Your task to perform on an android device: Search for Italian restaurants on Maps Image 0: 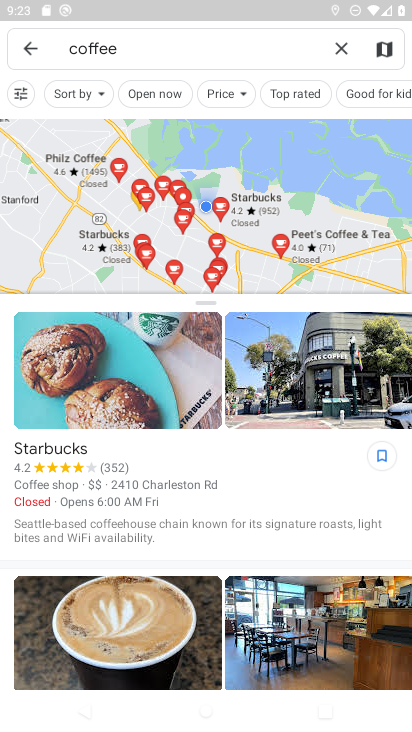
Step 0: press home button
Your task to perform on an android device: Search for Italian restaurants on Maps Image 1: 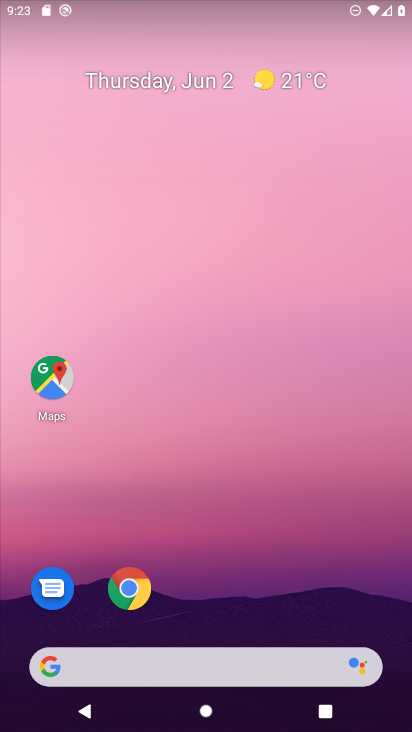
Step 1: drag from (275, 527) to (275, 387)
Your task to perform on an android device: Search for Italian restaurants on Maps Image 2: 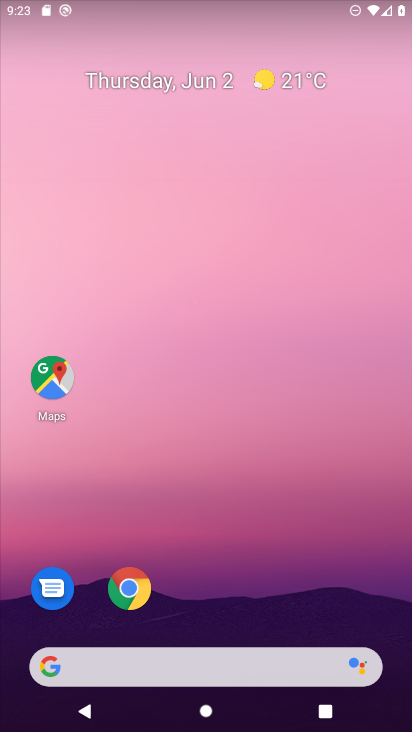
Step 2: drag from (235, 614) to (255, 200)
Your task to perform on an android device: Search for Italian restaurants on Maps Image 3: 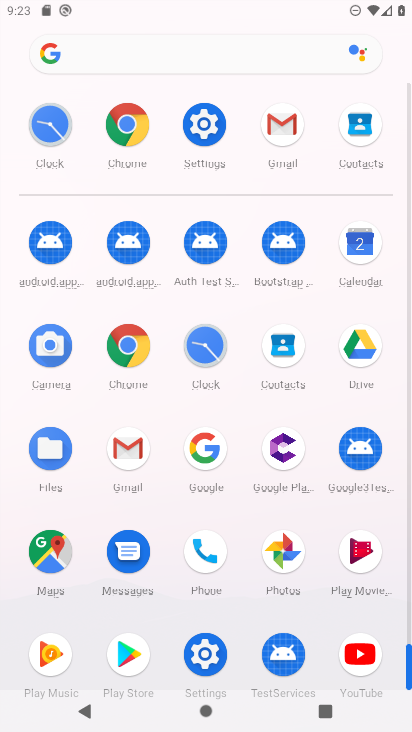
Step 3: click (43, 533)
Your task to perform on an android device: Search for Italian restaurants on Maps Image 4: 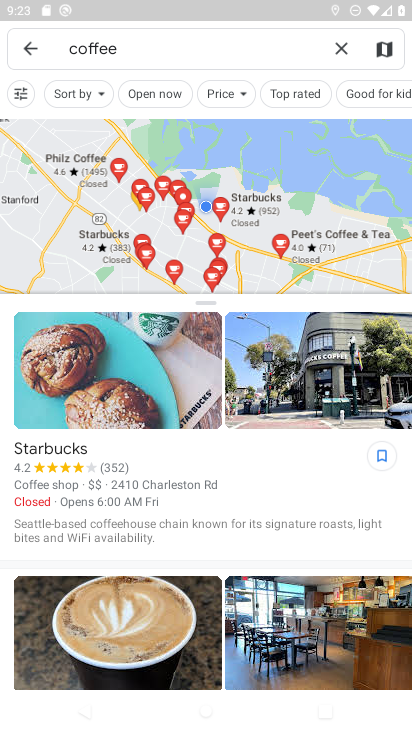
Step 4: click (340, 43)
Your task to perform on an android device: Search for Italian restaurants on Maps Image 5: 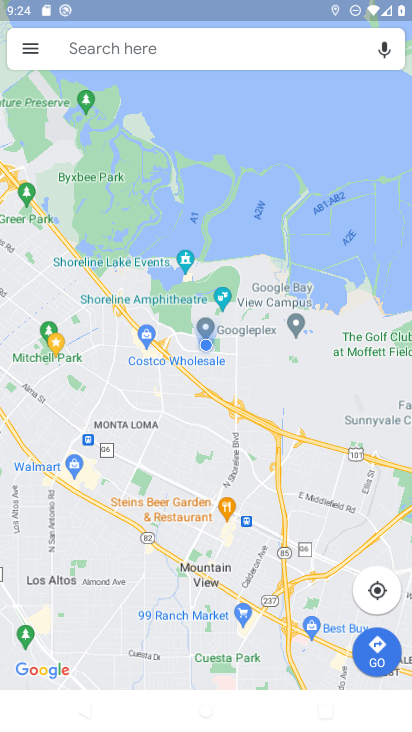
Step 5: click (317, 55)
Your task to perform on an android device: Search for Italian restaurants on Maps Image 6: 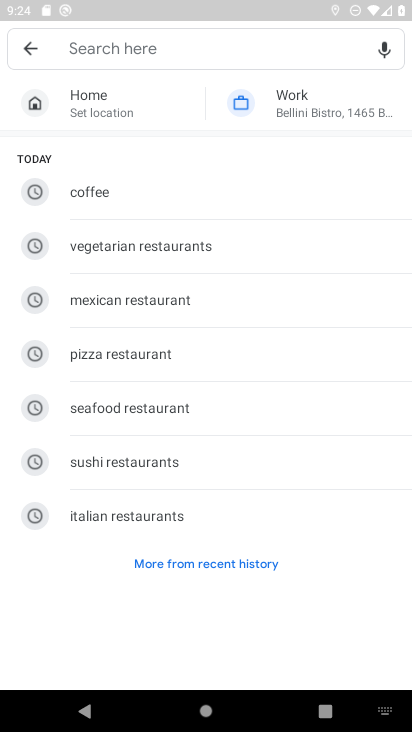
Step 6: click (131, 517)
Your task to perform on an android device: Search for Italian restaurants on Maps Image 7: 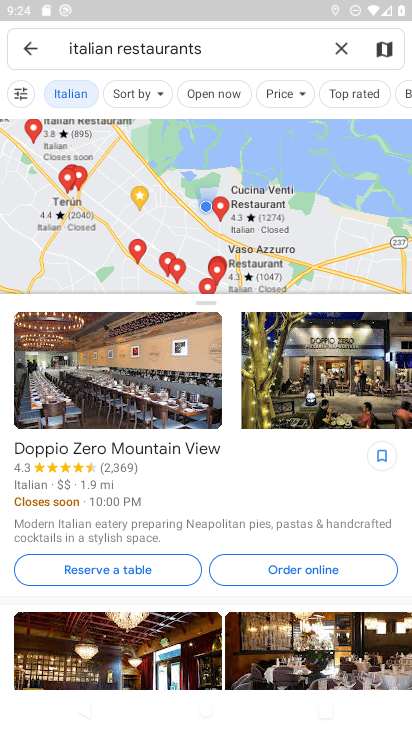
Step 7: task complete